Your task to perform on an android device: Open ESPN.com Image 0: 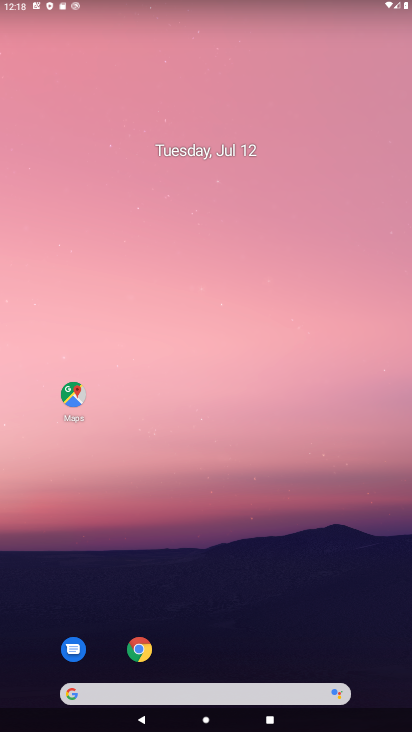
Step 0: drag from (367, 629) to (172, 132)
Your task to perform on an android device: Open ESPN.com Image 1: 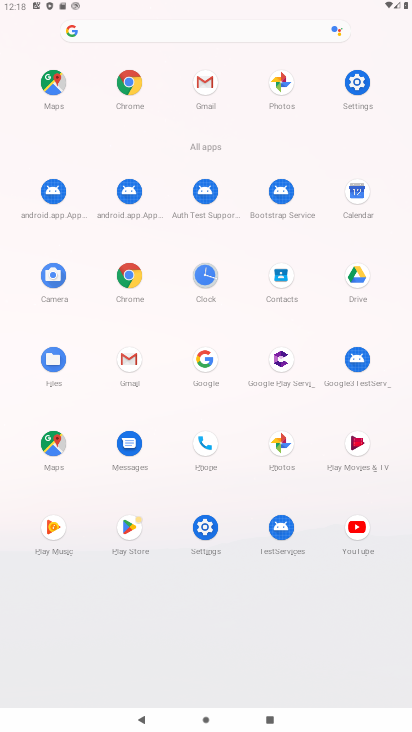
Step 1: click (212, 354)
Your task to perform on an android device: Open ESPN.com Image 2: 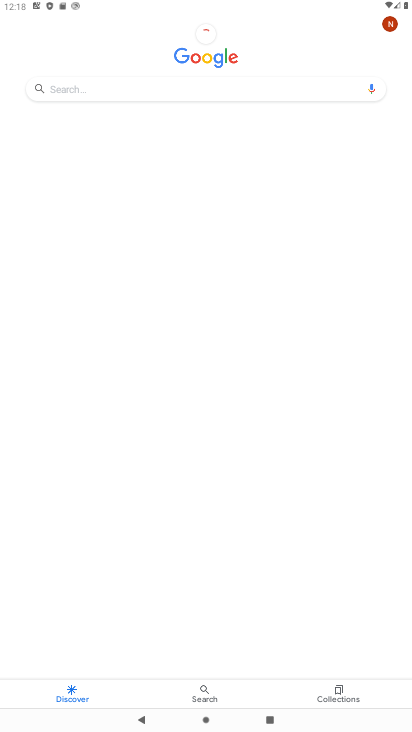
Step 2: click (128, 90)
Your task to perform on an android device: Open ESPN.com Image 3: 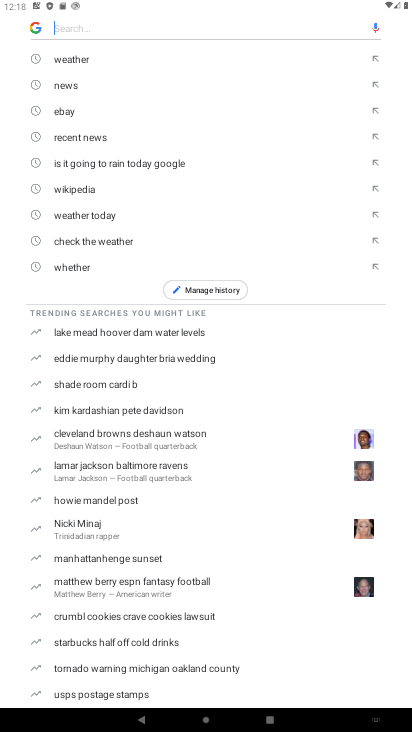
Step 3: type "espn.com"
Your task to perform on an android device: Open ESPN.com Image 4: 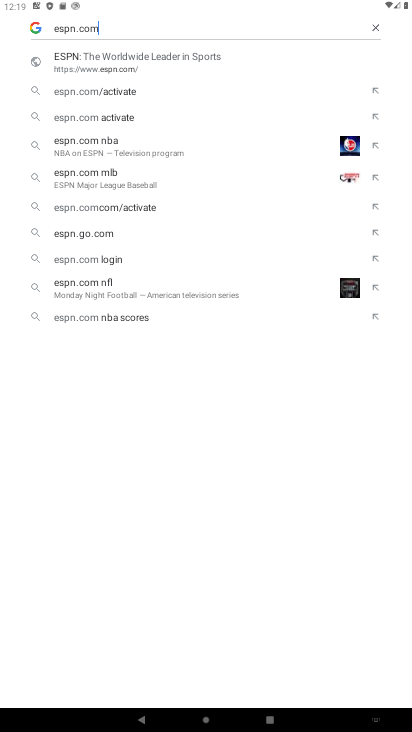
Step 4: click (92, 79)
Your task to perform on an android device: Open ESPN.com Image 5: 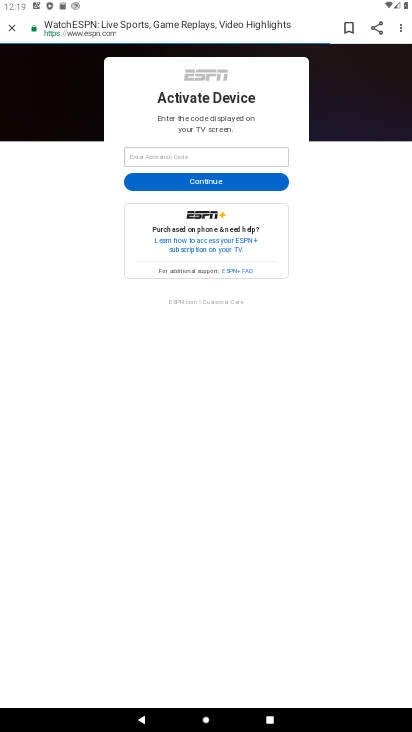
Step 5: task complete